Your task to perform on an android device: Open the calendar app, open the side menu, and click the "Day" option Image 0: 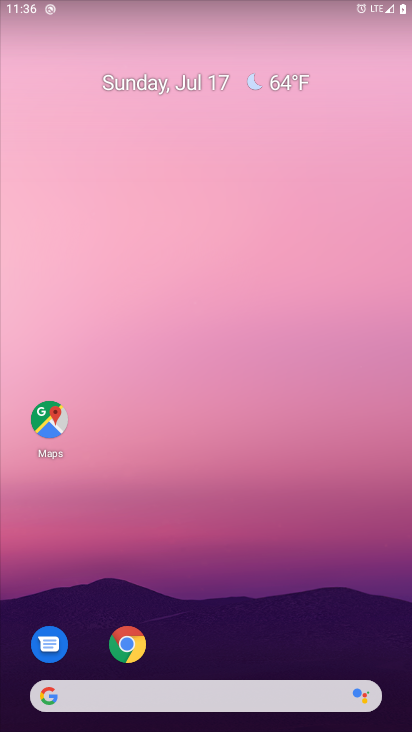
Step 0: press home button
Your task to perform on an android device: Open the calendar app, open the side menu, and click the "Day" option Image 1: 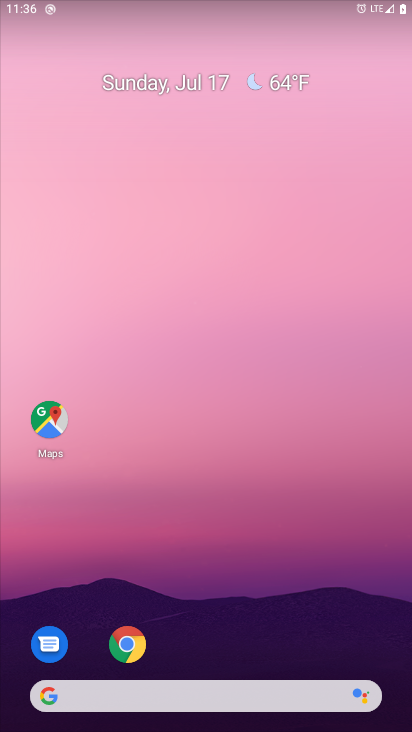
Step 1: drag from (260, 652) to (344, 168)
Your task to perform on an android device: Open the calendar app, open the side menu, and click the "Day" option Image 2: 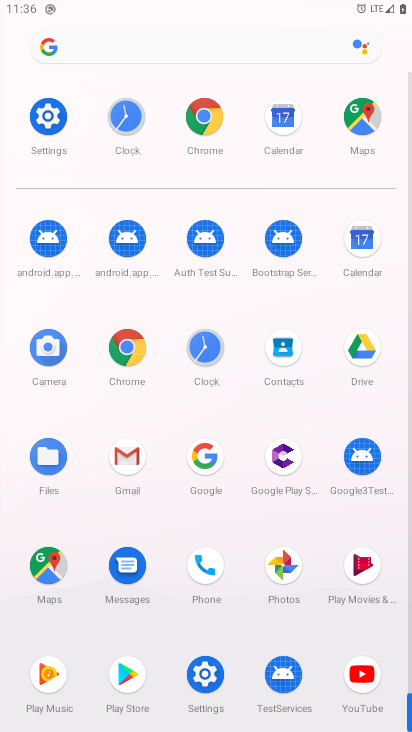
Step 2: click (361, 245)
Your task to perform on an android device: Open the calendar app, open the side menu, and click the "Day" option Image 3: 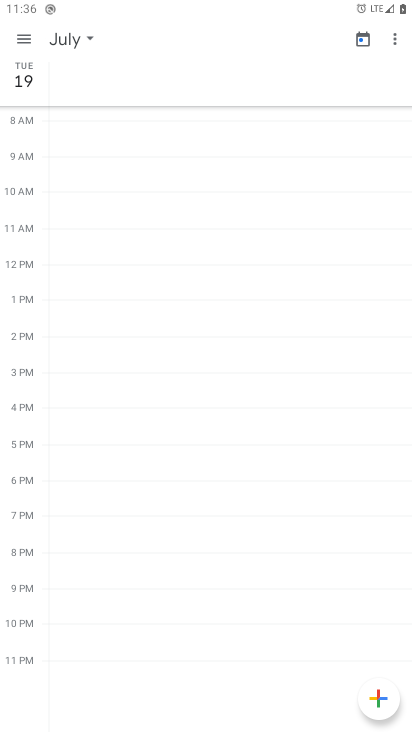
Step 3: click (18, 42)
Your task to perform on an android device: Open the calendar app, open the side menu, and click the "Day" option Image 4: 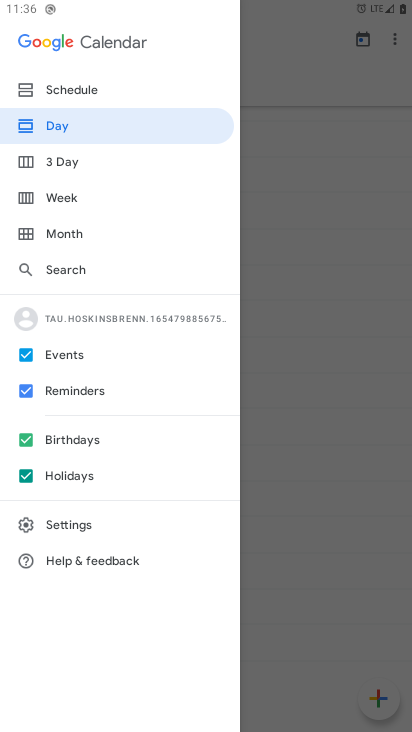
Step 4: click (67, 131)
Your task to perform on an android device: Open the calendar app, open the side menu, and click the "Day" option Image 5: 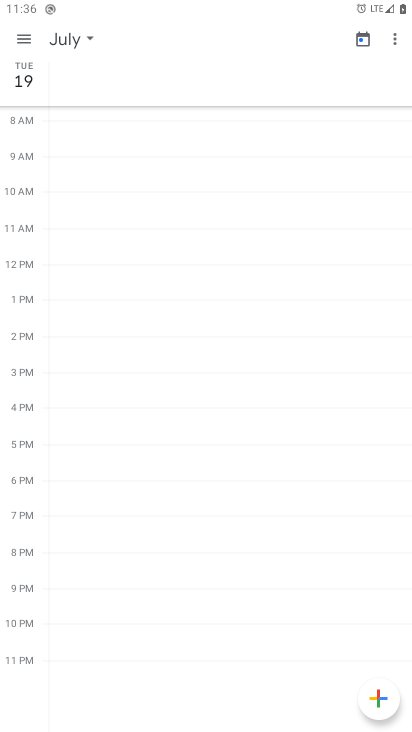
Step 5: task complete